Your task to perform on an android device: Show me recent news Image 0: 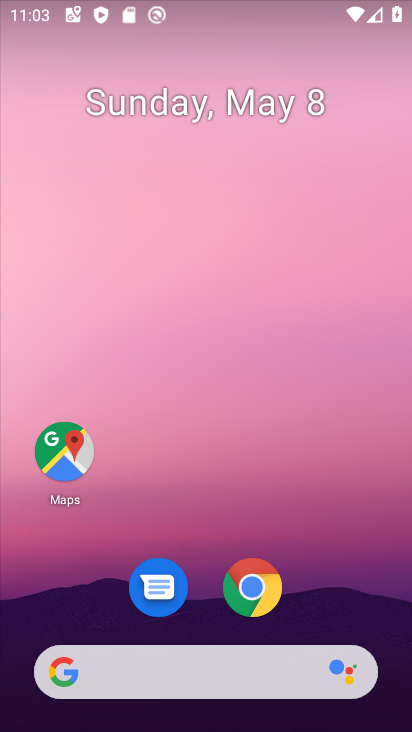
Step 0: drag from (8, 264) to (350, 152)
Your task to perform on an android device: Show me recent news Image 1: 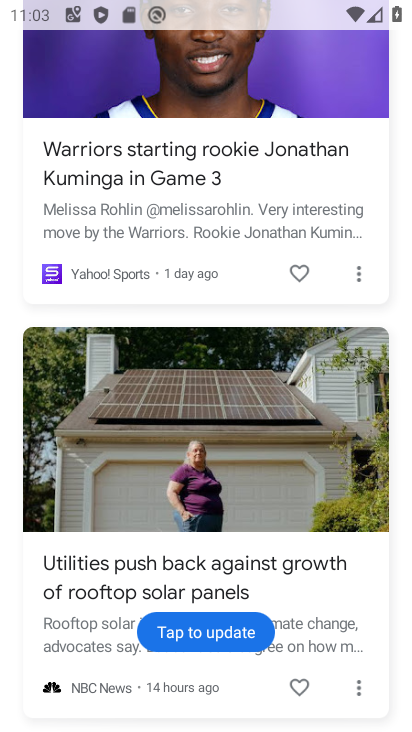
Step 1: click (383, 382)
Your task to perform on an android device: Show me recent news Image 2: 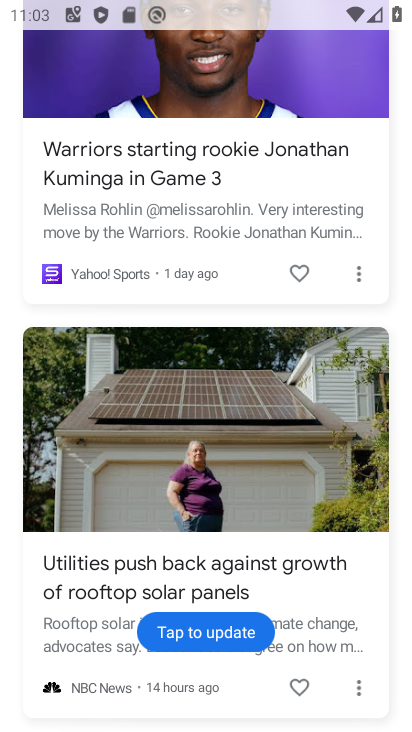
Step 2: task complete